Your task to perform on an android device: Search for hotels in Tokyo Image 0: 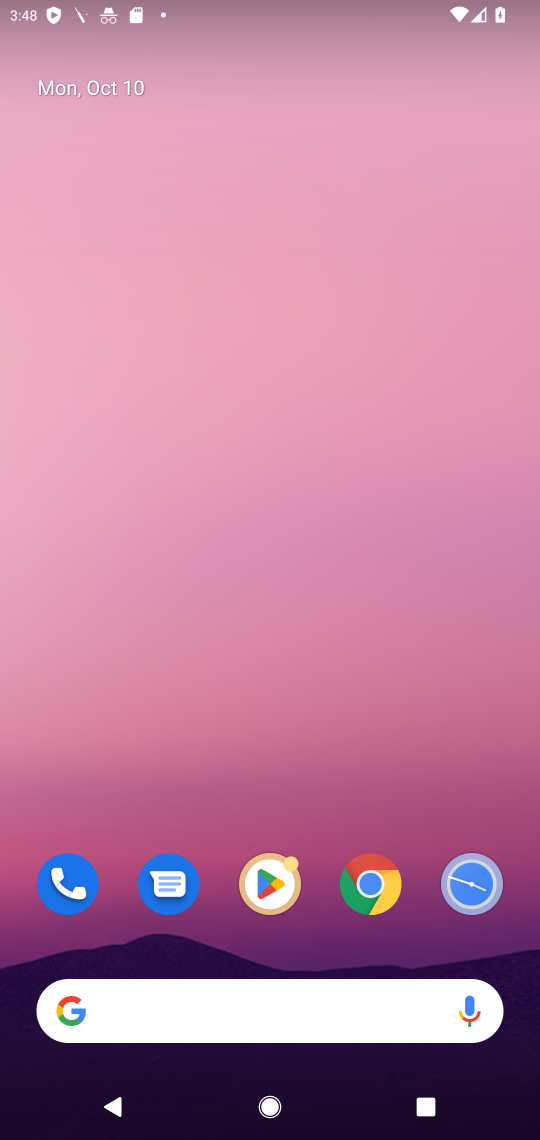
Step 0: click (191, 1019)
Your task to perform on an android device: Search for hotels in Tokyo Image 1: 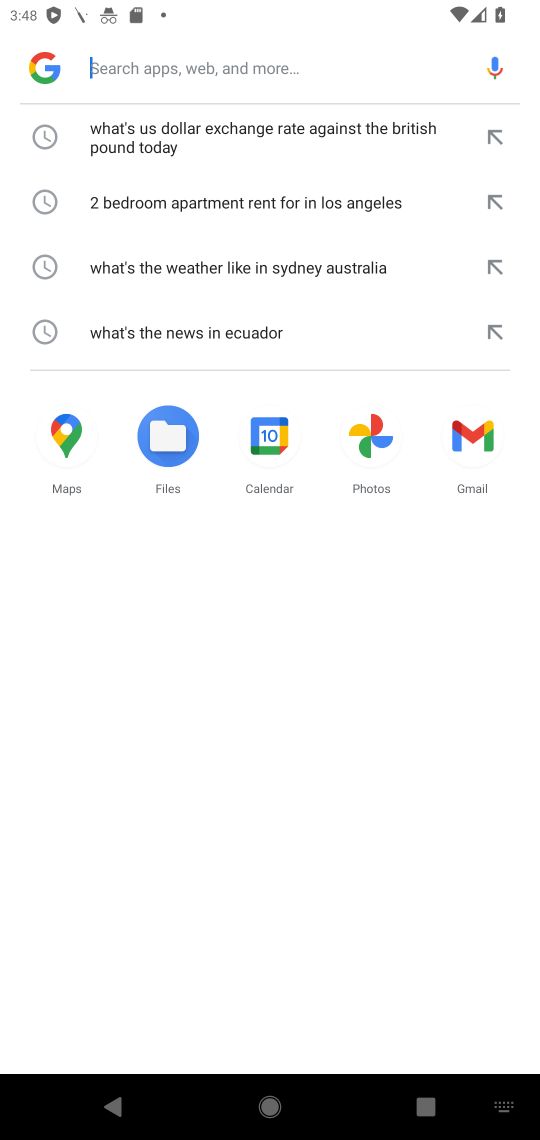
Step 1: type "hotels in Tokyo"
Your task to perform on an android device: Search for hotels in Tokyo Image 2: 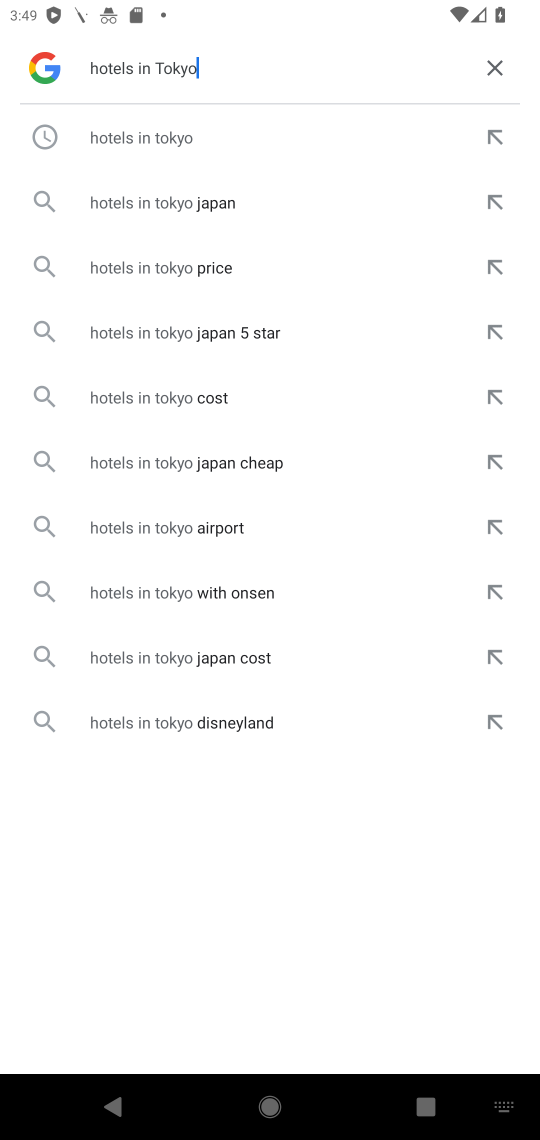
Step 2: click (172, 135)
Your task to perform on an android device: Search for hotels in Tokyo Image 3: 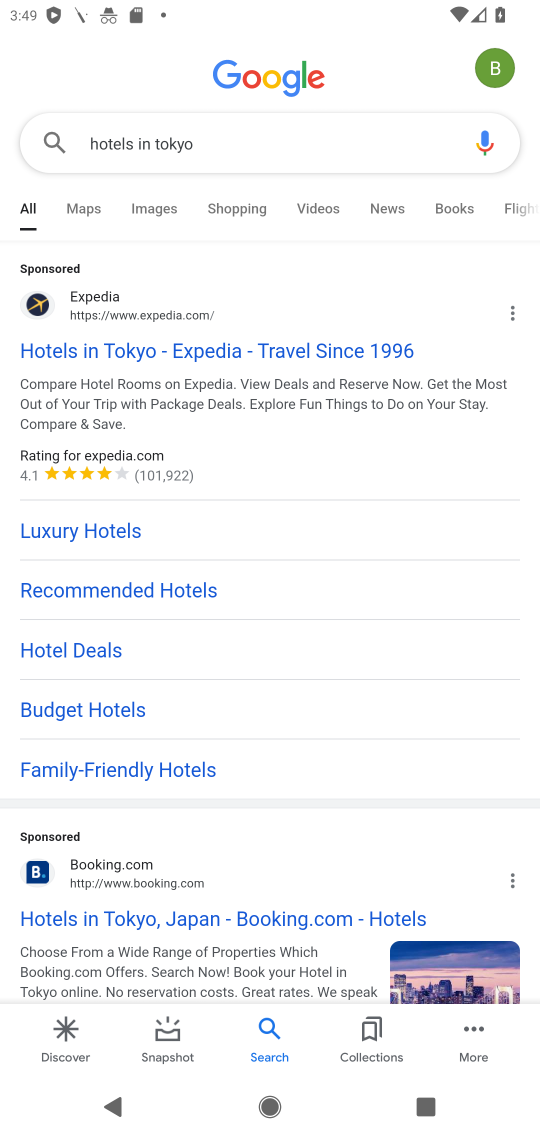
Step 3: click (195, 344)
Your task to perform on an android device: Search for hotels in Tokyo Image 4: 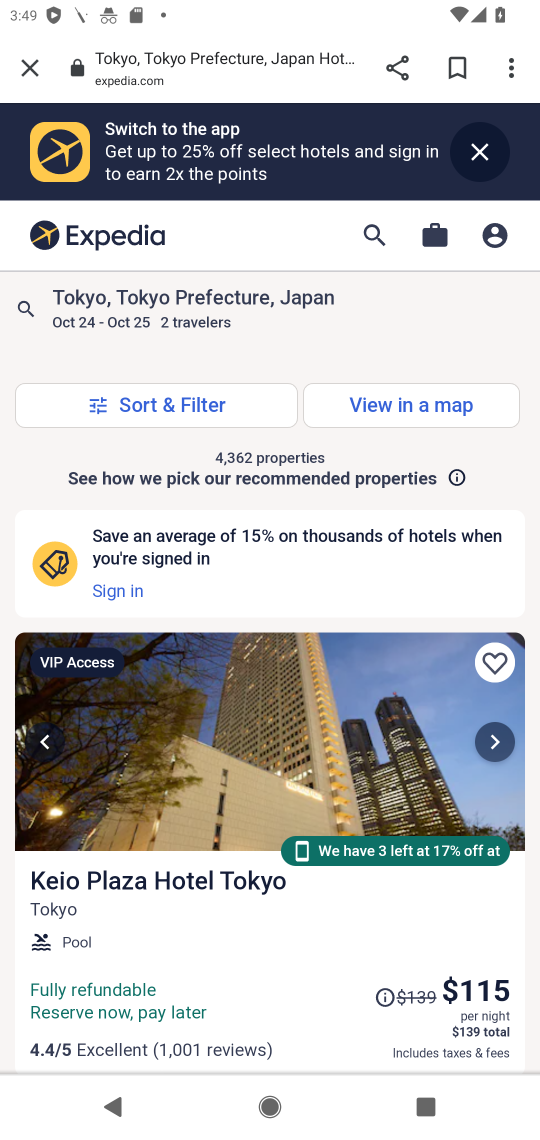
Step 4: task complete